Your task to perform on an android device: Open Reddit.com Image 0: 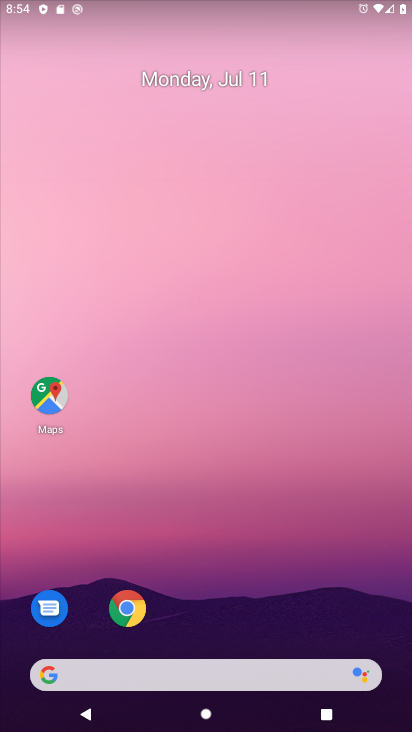
Step 0: click (127, 613)
Your task to perform on an android device: Open Reddit.com Image 1: 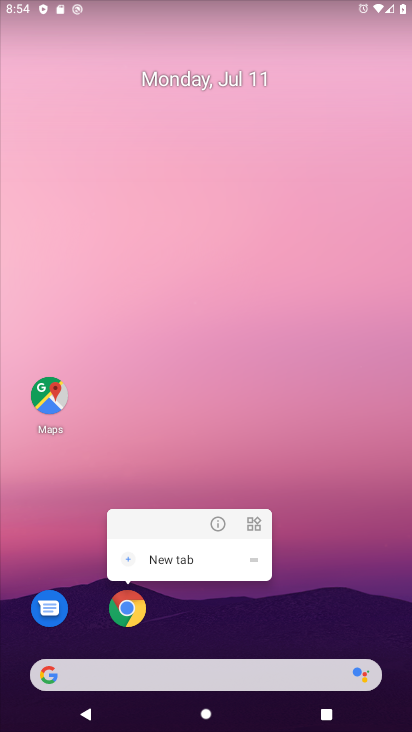
Step 1: drag from (210, 645) to (366, 176)
Your task to perform on an android device: Open Reddit.com Image 2: 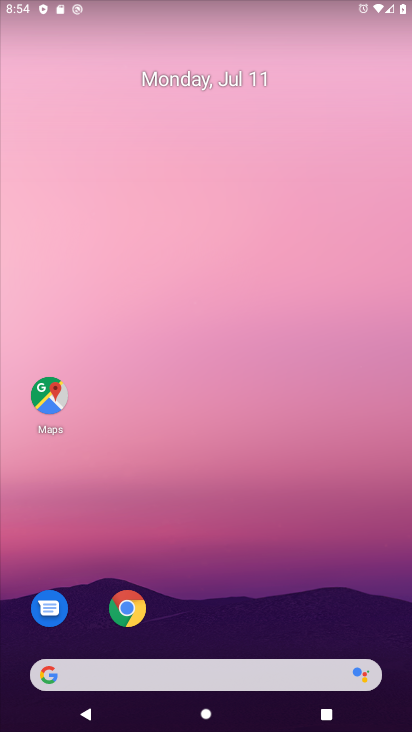
Step 2: drag from (224, 494) to (345, 10)
Your task to perform on an android device: Open Reddit.com Image 3: 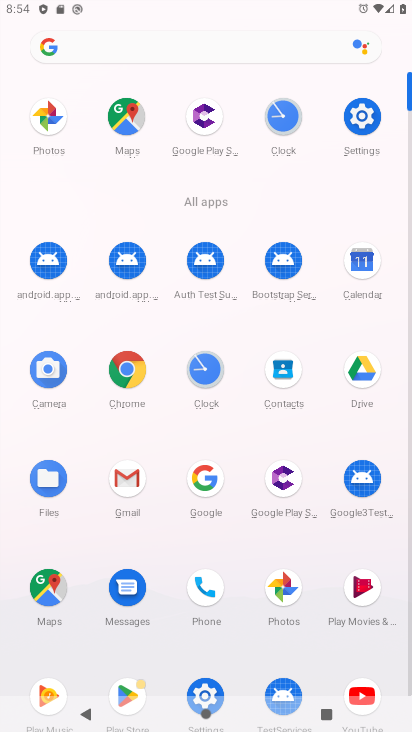
Step 3: click (117, 369)
Your task to perform on an android device: Open Reddit.com Image 4: 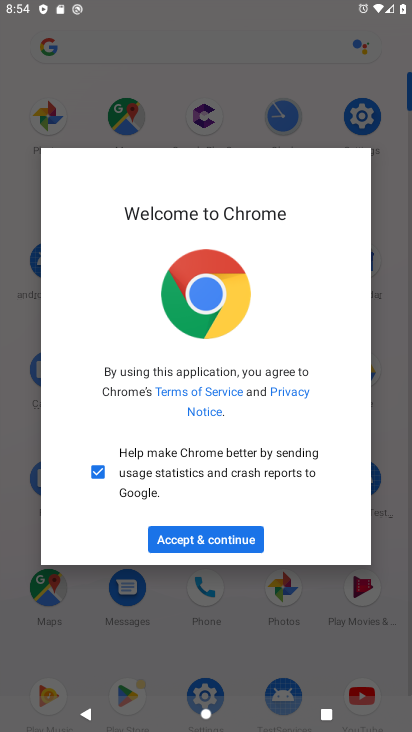
Step 4: click (231, 527)
Your task to perform on an android device: Open Reddit.com Image 5: 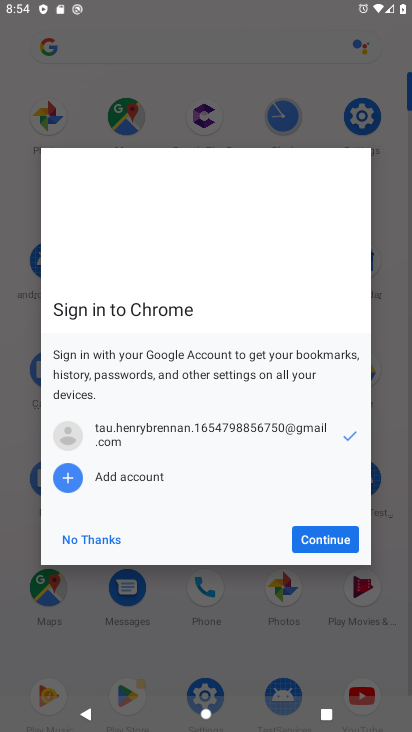
Step 5: click (310, 543)
Your task to perform on an android device: Open Reddit.com Image 6: 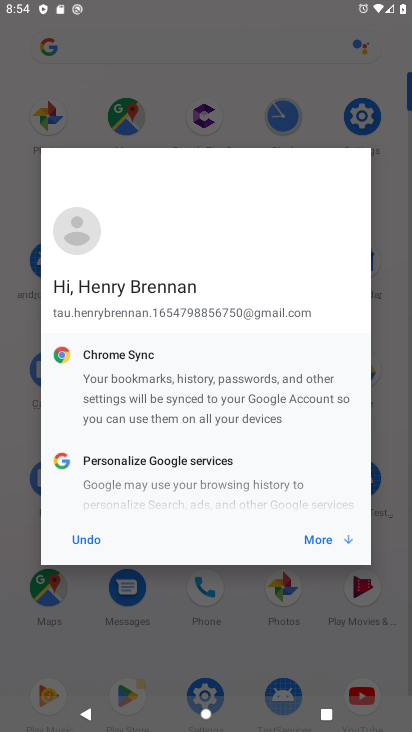
Step 6: click (310, 543)
Your task to perform on an android device: Open Reddit.com Image 7: 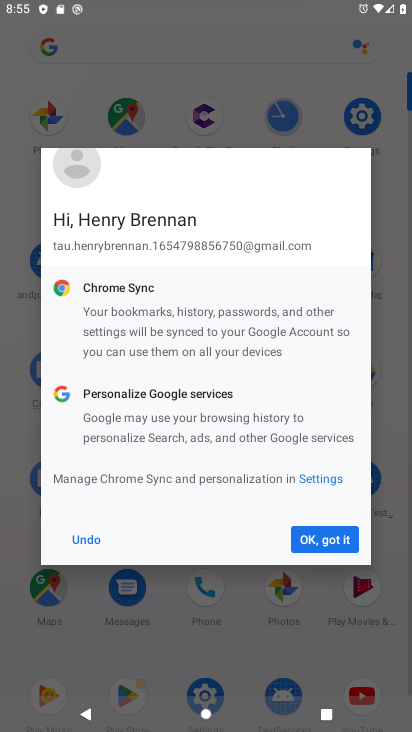
Step 7: click (319, 525)
Your task to perform on an android device: Open Reddit.com Image 8: 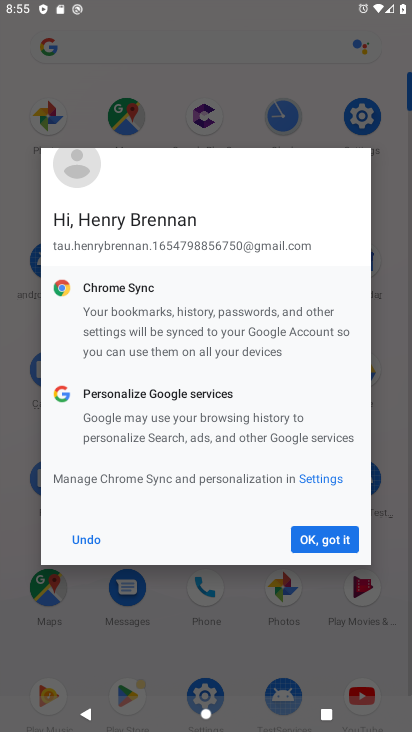
Step 8: click (324, 530)
Your task to perform on an android device: Open Reddit.com Image 9: 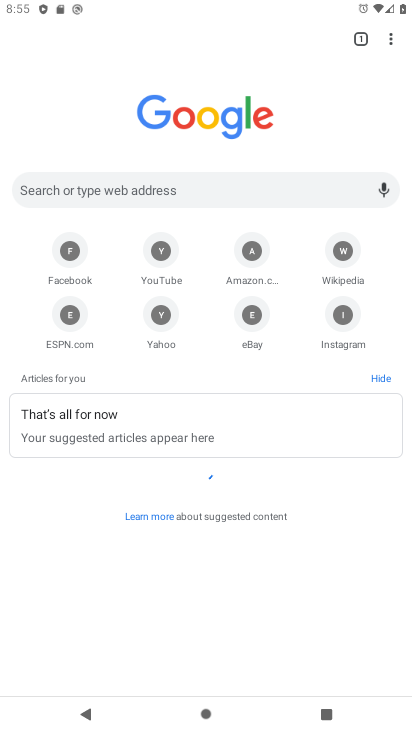
Step 9: click (127, 183)
Your task to perform on an android device: Open Reddit.com Image 10: 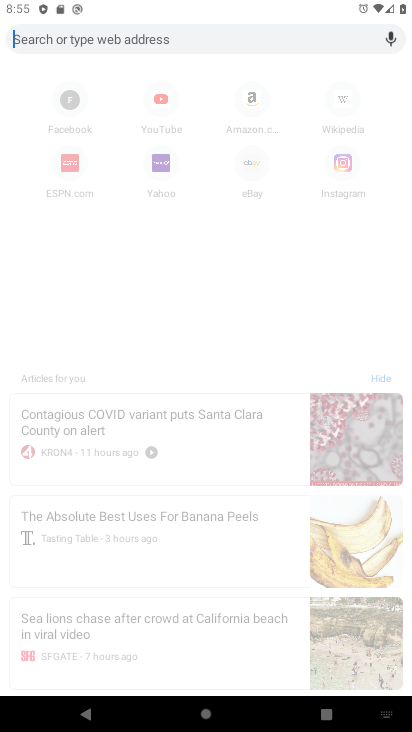
Step 10: type "reddit.com"
Your task to perform on an android device: Open Reddit.com Image 11: 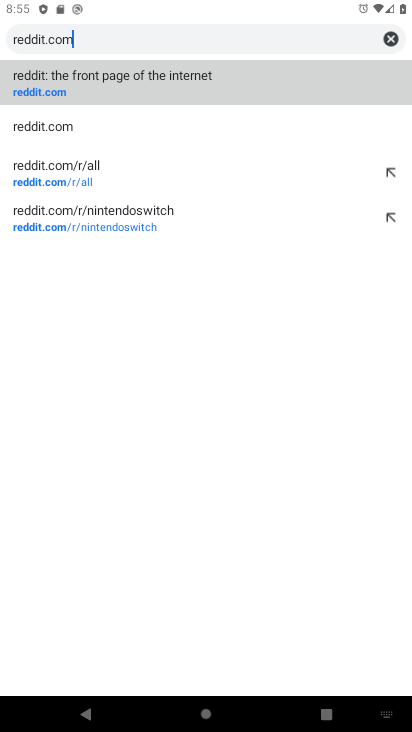
Step 11: click (52, 93)
Your task to perform on an android device: Open Reddit.com Image 12: 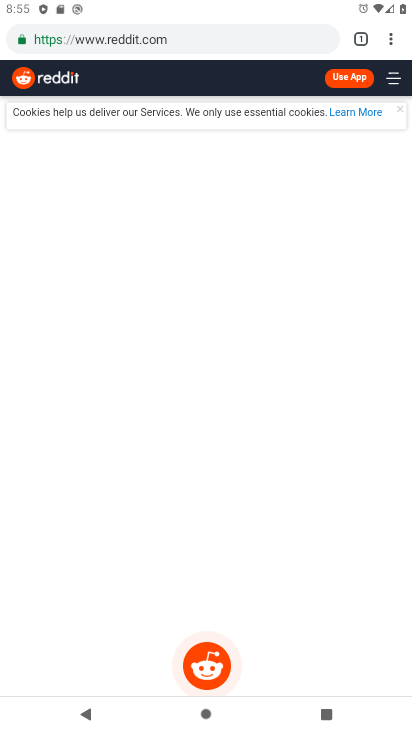
Step 12: task complete